Your task to perform on an android device: Open Google Chrome Image 0: 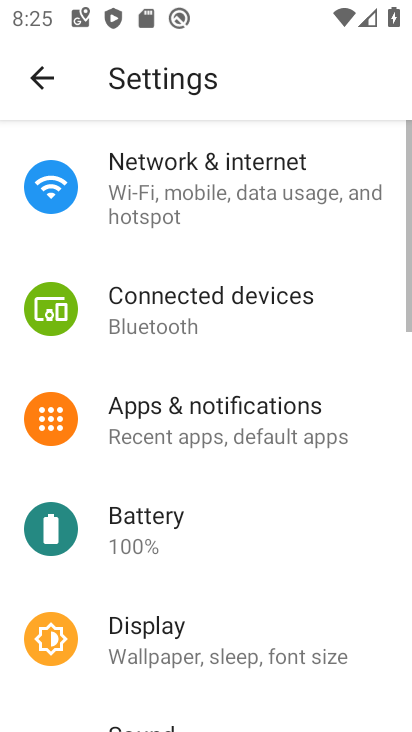
Step 0: press home button
Your task to perform on an android device: Open Google Chrome Image 1: 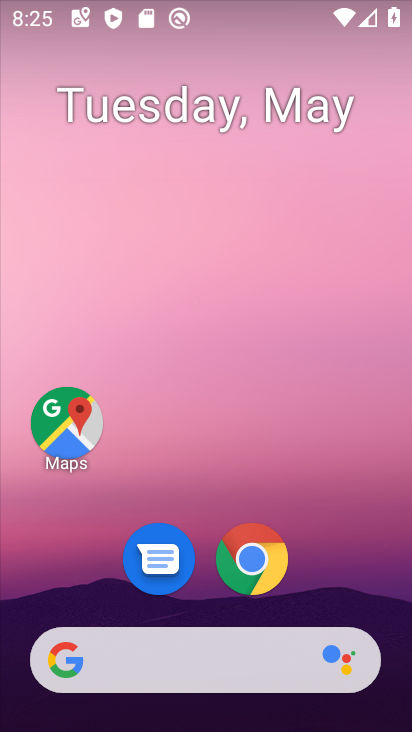
Step 1: click (237, 577)
Your task to perform on an android device: Open Google Chrome Image 2: 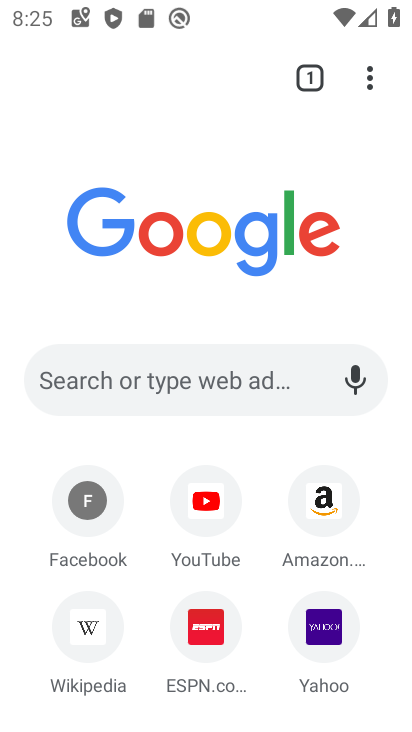
Step 2: task complete